Your task to perform on an android device: turn notification dots on Image 0: 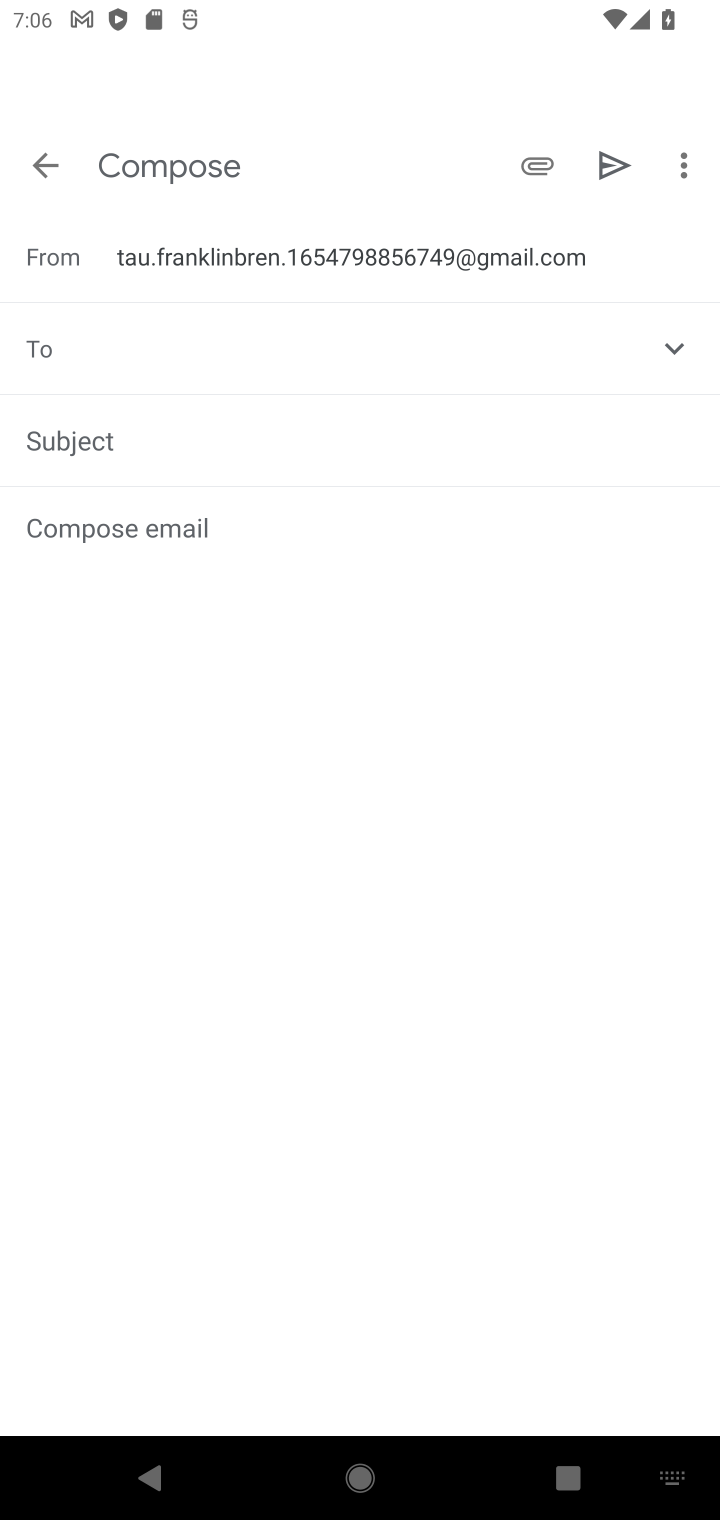
Step 0: press home button
Your task to perform on an android device: turn notification dots on Image 1: 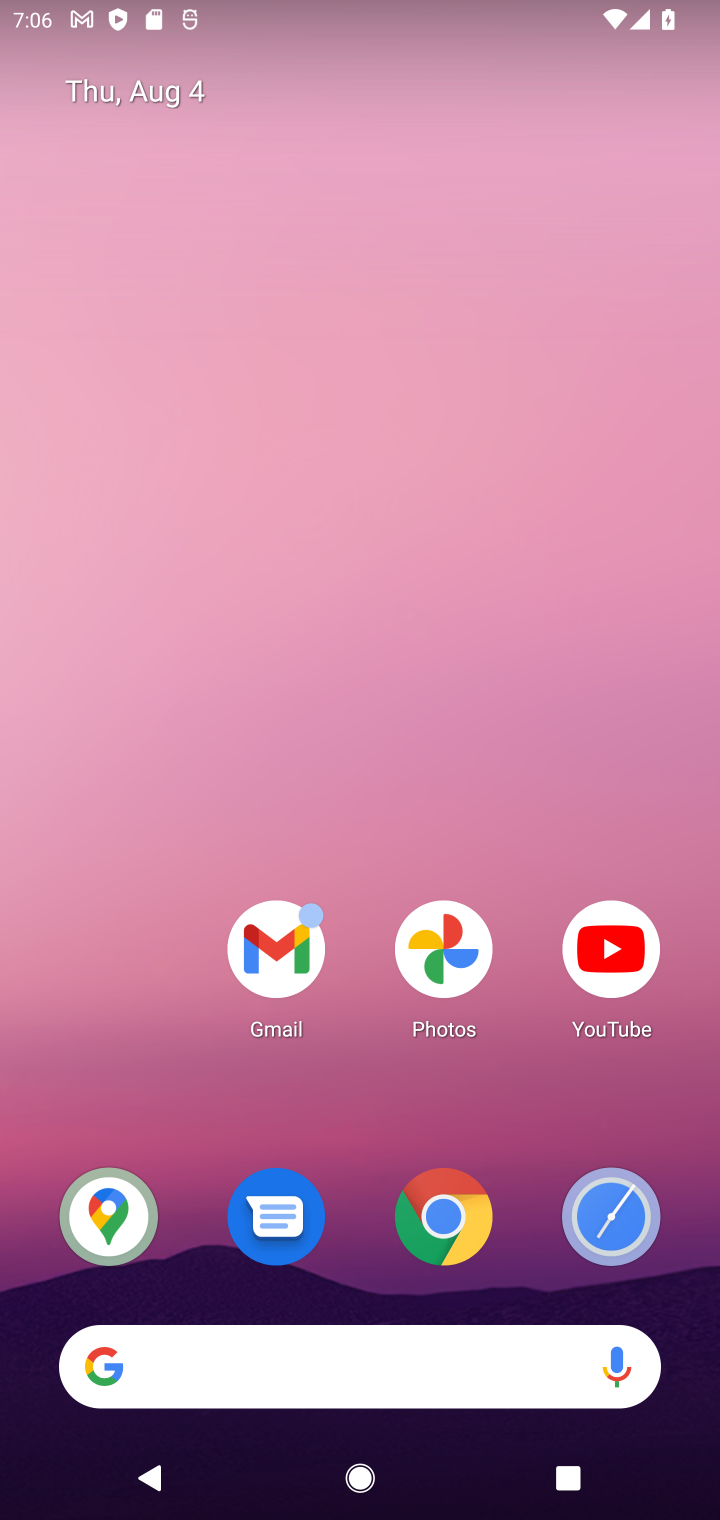
Step 1: drag from (376, 1121) to (295, 90)
Your task to perform on an android device: turn notification dots on Image 2: 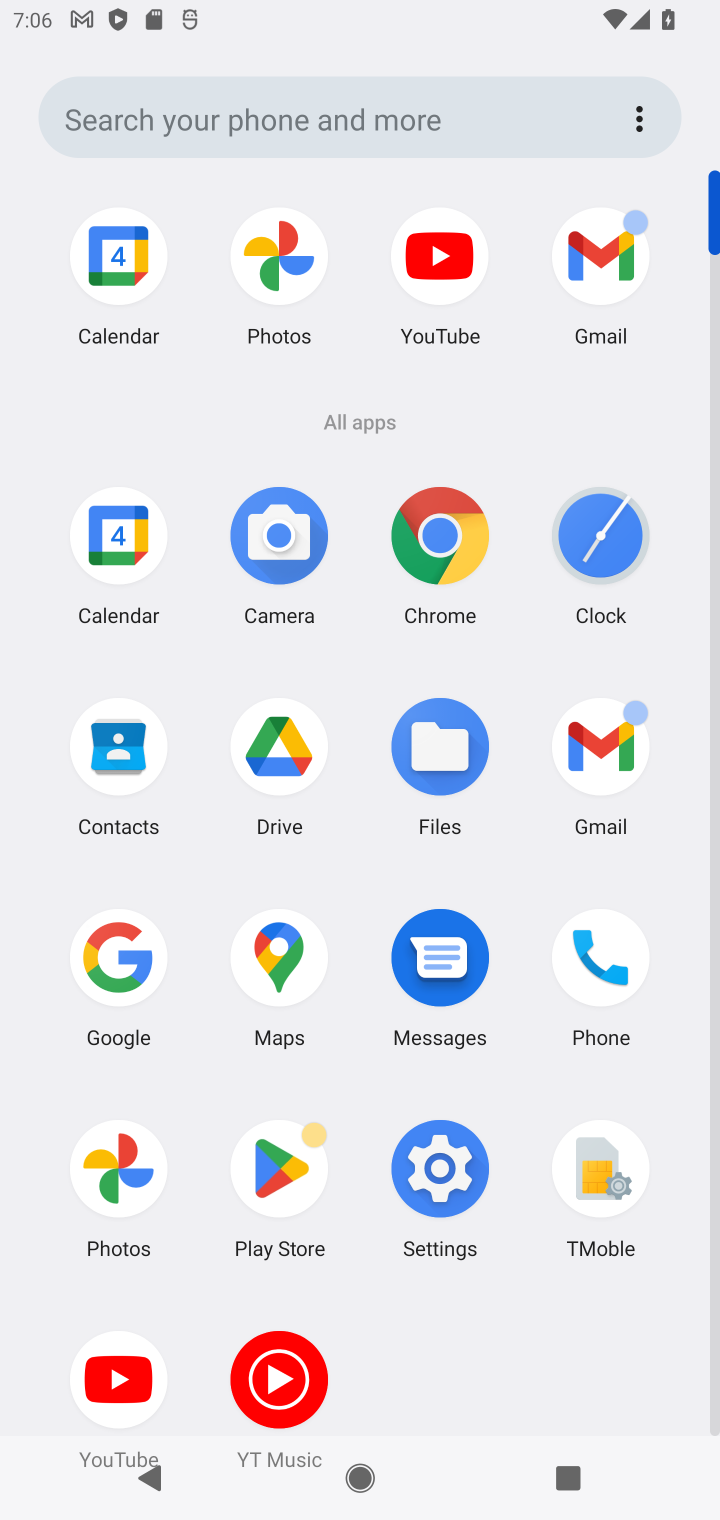
Step 2: click (447, 1174)
Your task to perform on an android device: turn notification dots on Image 3: 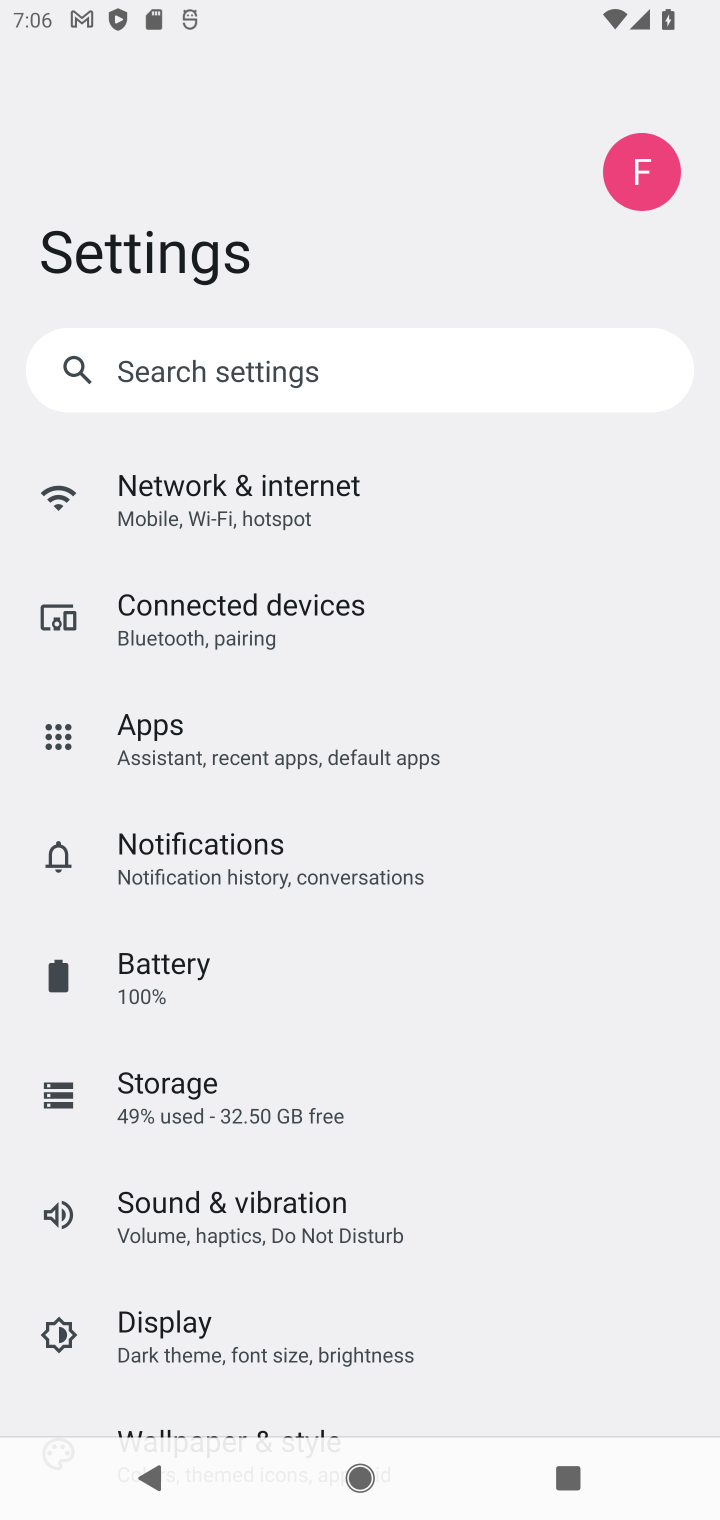
Step 3: click (195, 848)
Your task to perform on an android device: turn notification dots on Image 4: 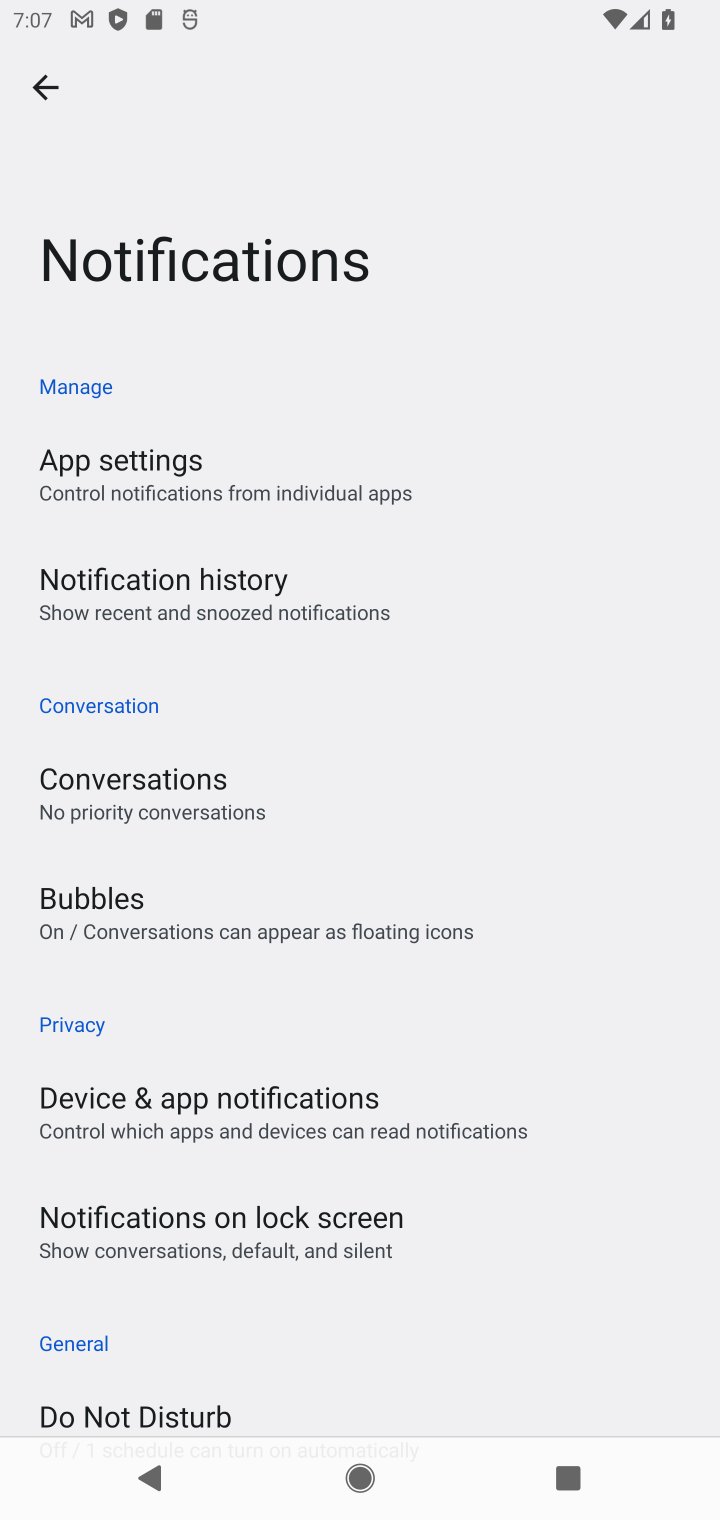
Step 4: task complete